Your task to perform on an android device: Open Youtube and go to the subscriptions tab Image 0: 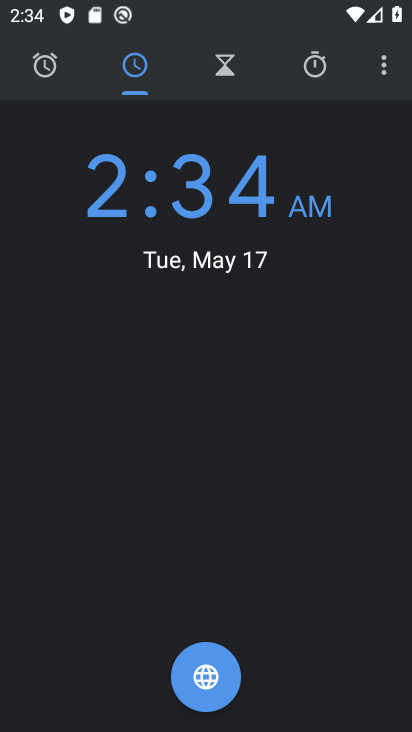
Step 0: press back button
Your task to perform on an android device: Open Youtube and go to the subscriptions tab Image 1: 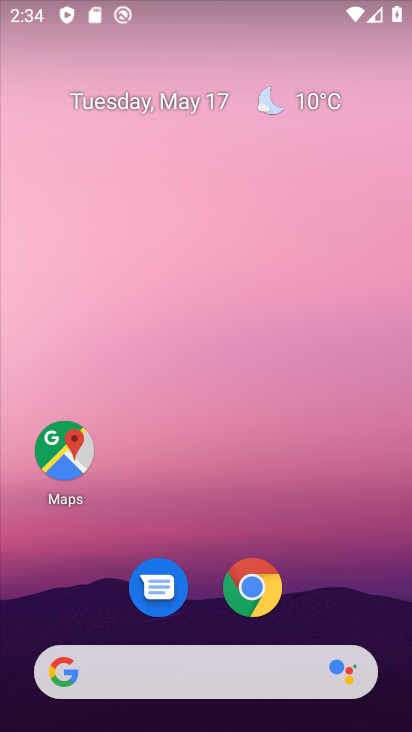
Step 1: drag from (345, 595) to (266, 73)
Your task to perform on an android device: Open Youtube and go to the subscriptions tab Image 2: 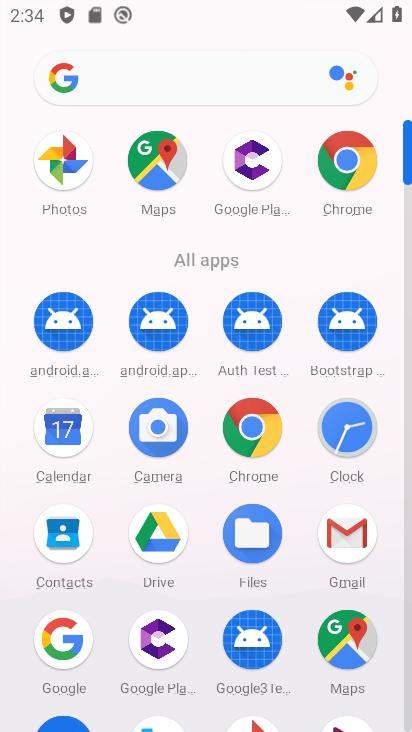
Step 2: drag from (13, 569) to (8, 221)
Your task to perform on an android device: Open Youtube and go to the subscriptions tab Image 3: 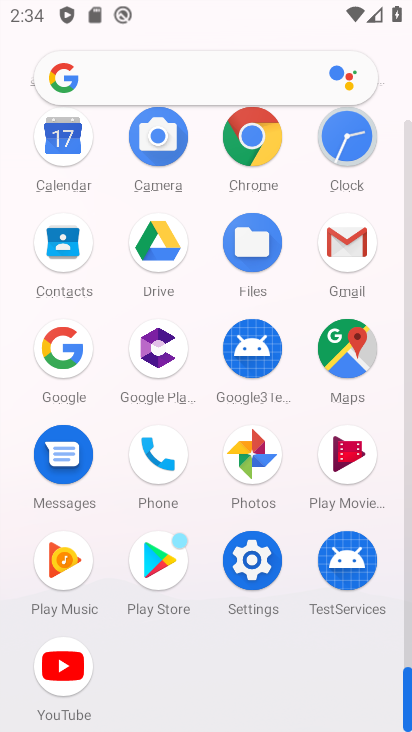
Step 3: click (60, 662)
Your task to perform on an android device: Open Youtube and go to the subscriptions tab Image 4: 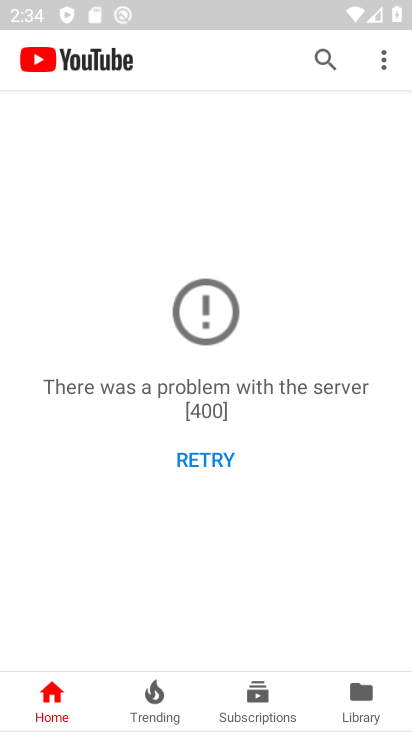
Step 4: click (368, 700)
Your task to perform on an android device: Open Youtube and go to the subscriptions tab Image 5: 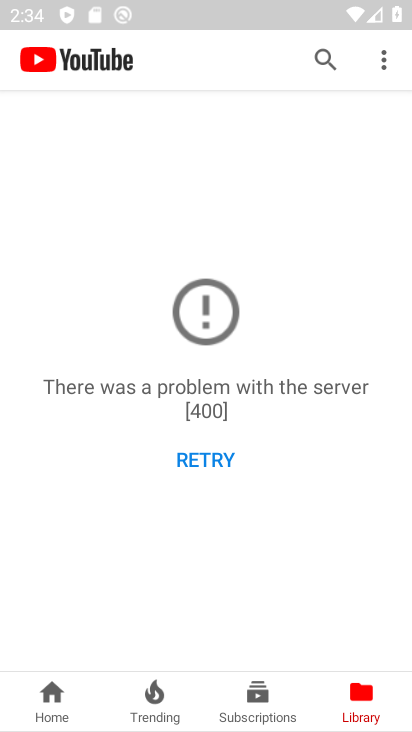
Step 5: click (251, 700)
Your task to perform on an android device: Open Youtube and go to the subscriptions tab Image 6: 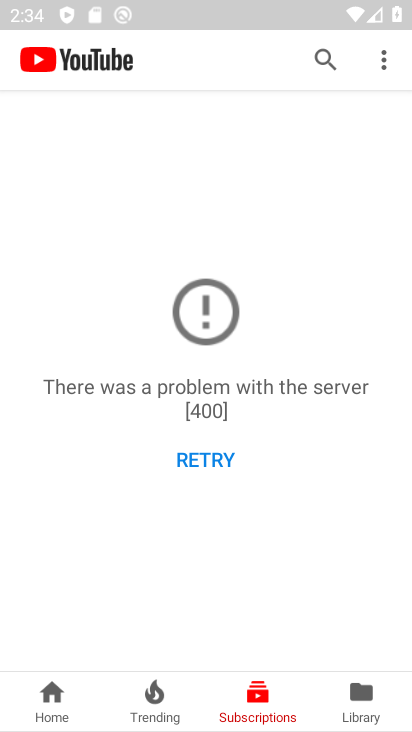
Step 6: task complete